Your task to perform on an android device: Is it going to rain this weekend? Image 0: 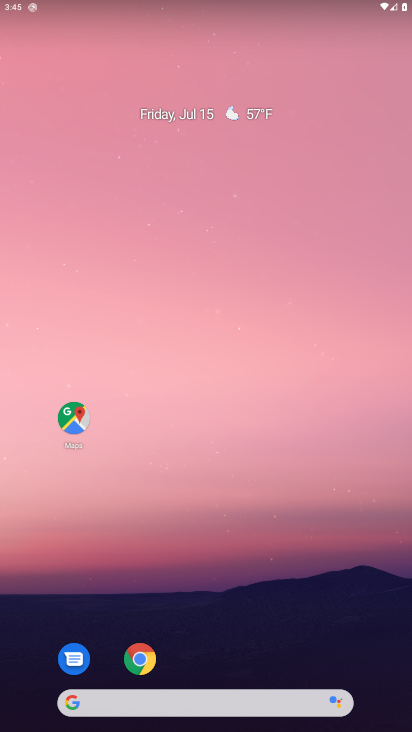
Step 0: drag from (38, 684) to (112, 159)
Your task to perform on an android device: Is it going to rain this weekend? Image 1: 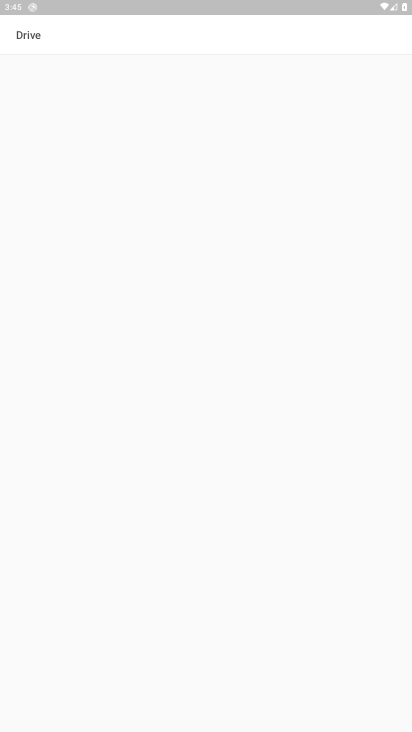
Step 1: press home button
Your task to perform on an android device: Is it going to rain this weekend? Image 2: 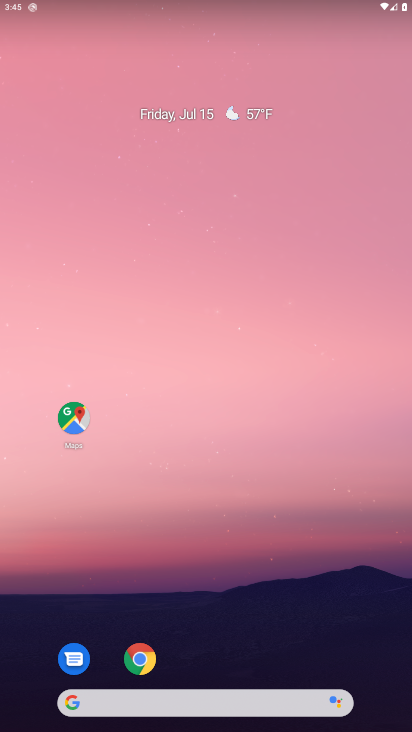
Step 2: click (137, 702)
Your task to perform on an android device: Is it going to rain this weekend? Image 3: 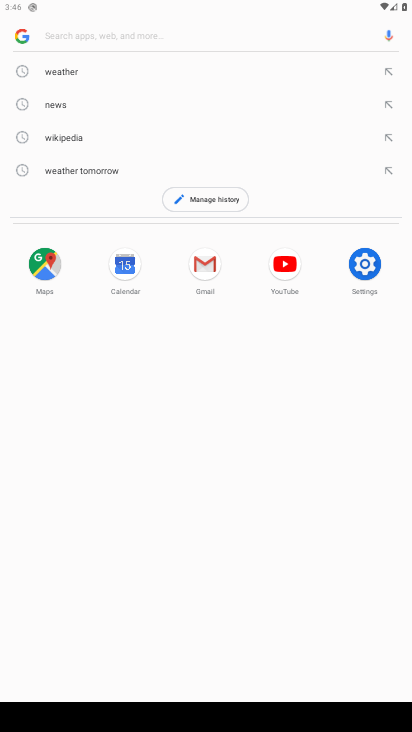
Step 3: type "Is it going to rain this weekend?"
Your task to perform on an android device: Is it going to rain this weekend? Image 4: 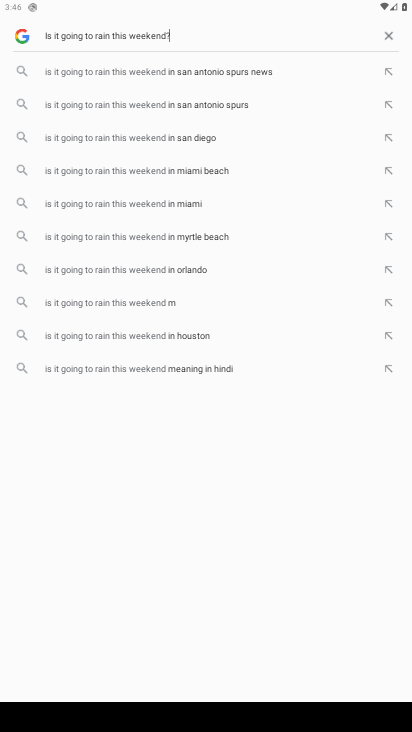
Step 4: type ""
Your task to perform on an android device: Is it going to rain this weekend? Image 5: 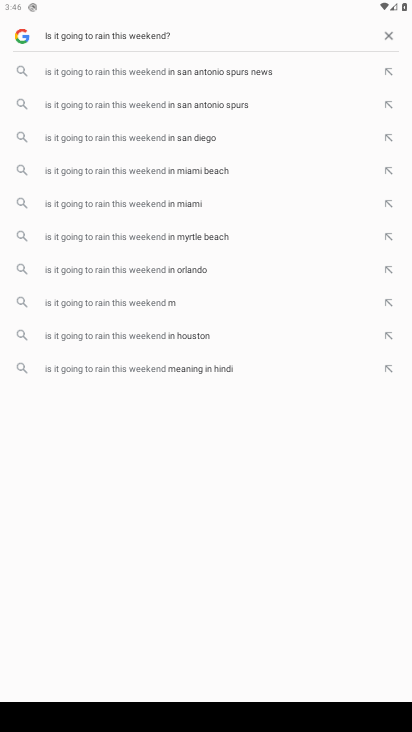
Step 5: type ""
Your task to perform on an android device: Is it going to rain this weekend? Image 6: 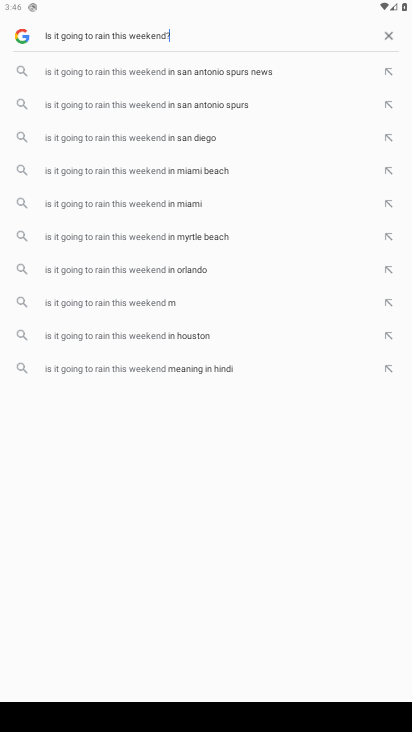
Step 6: type ""
Your task to perform on an android device: Is it going to rain this weekend? Image 7: 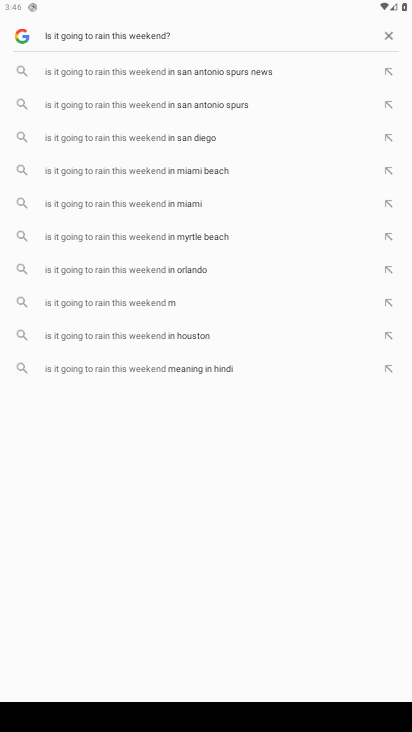
Step 7: type ""
Your task to perform on an android device: Is it going to rain this weekend? Image 8: 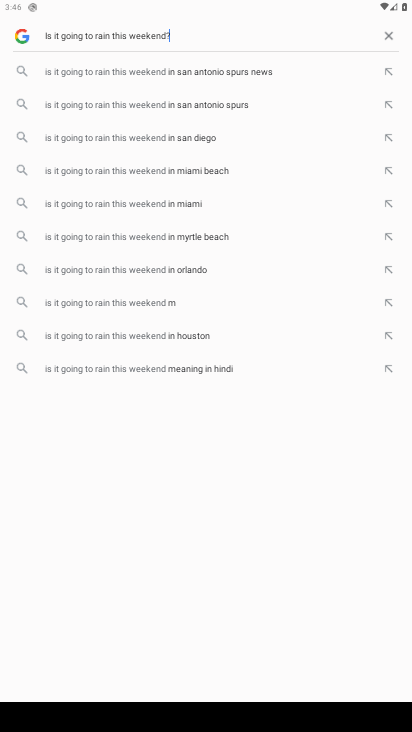
Step 8: task complete